Your task to perform on an android device: open chrome privacy settings Image 0: 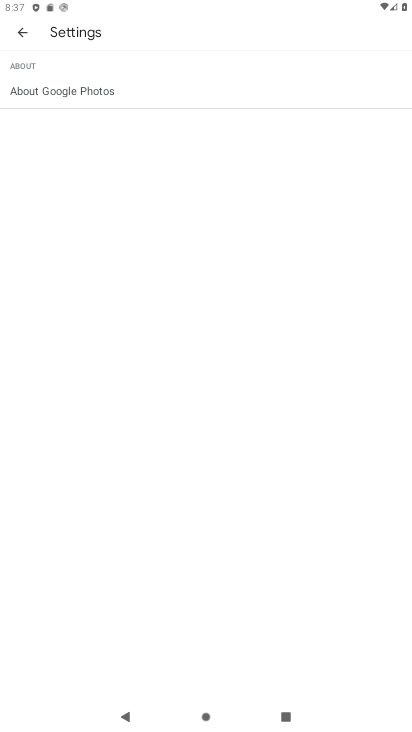
Step 0: press home button
Your task to perform on an android device: open chrome privacy settings Image 1: 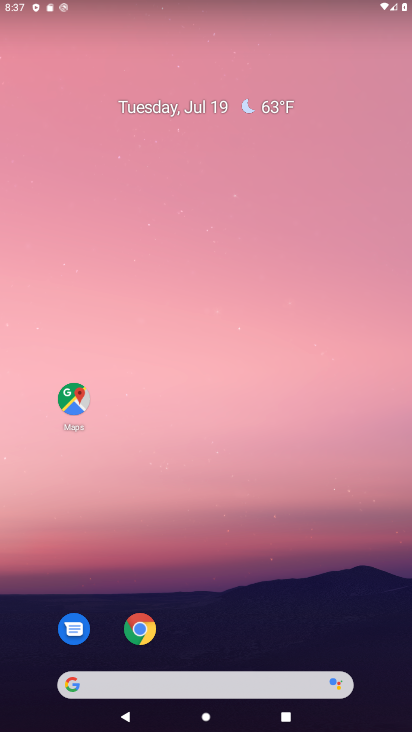
Step 1: drag from (213, 638) to (260, 0)
Your task to perform on an android device: open chrome privacy settings Image 2: 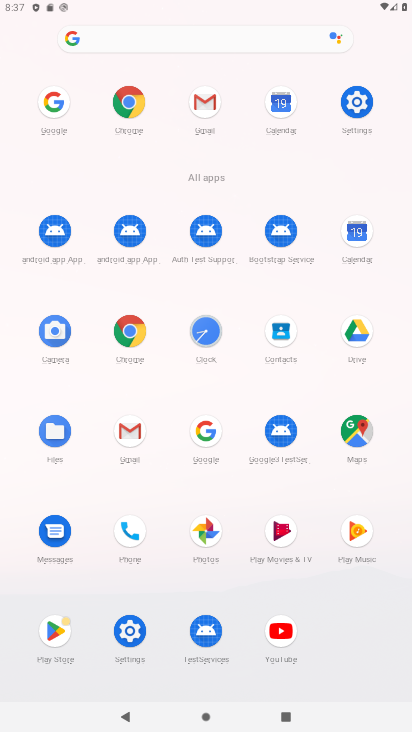
Step 2: click (125, 101)
Your task to perform on an android device: open chrome privacy settings Image 3: 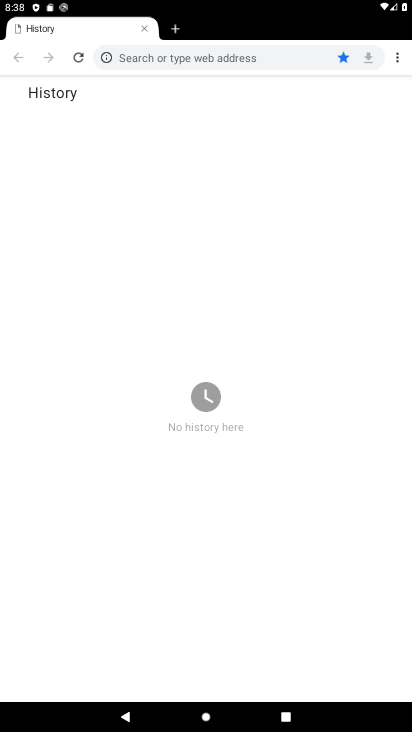
Step 3: click (395, 55)
Your task to perform on an android device: open chrome privacy settings Image 4: 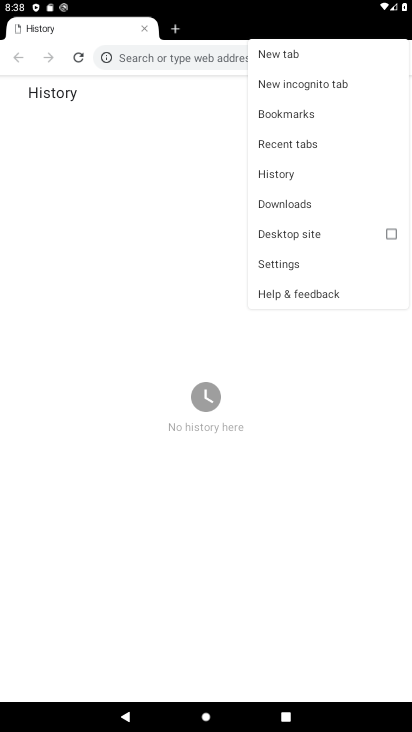
Step 4: click (307, 260)
Your task to perform on an android device: open chrome privacy settings Image 5: 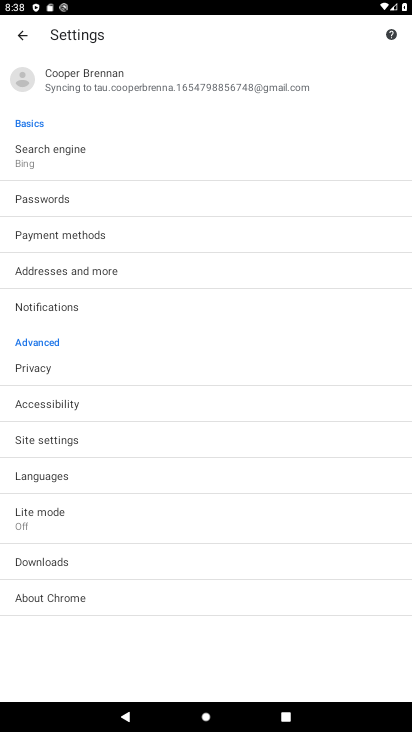
Step 5: click (66, 368)
Your task to perform on an android device: open chrome privacy settings Image 6: 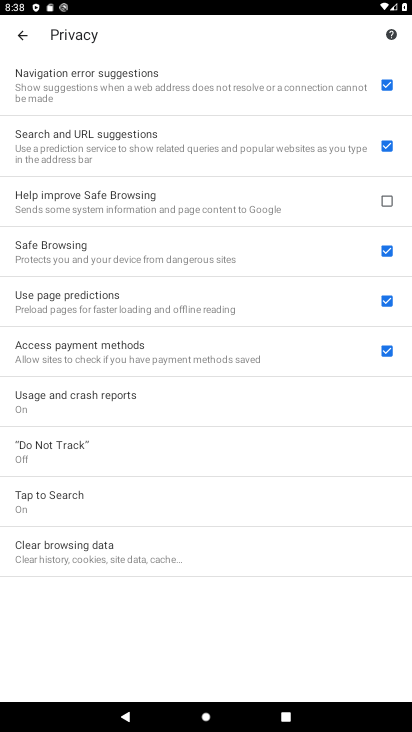
Step 6: task complete